Your task to perform on an android device: Open Chrome and go to the settings page Image 0: 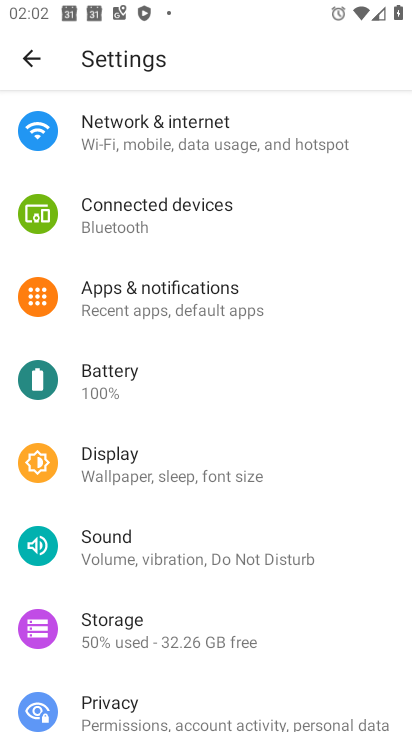
Step 0: press home button
Your task to perform on an android device: Open Chrome and go to the settings page Image 1: 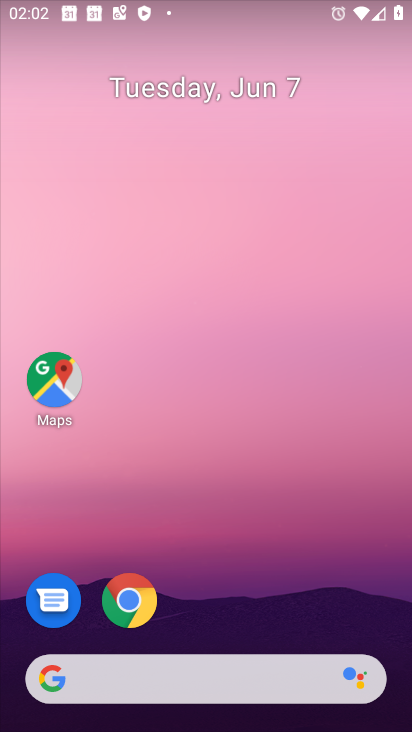
Step 1: click (128, 603)
Your task to perform on an android device: Open Chrome and go to the settings page Image 2: 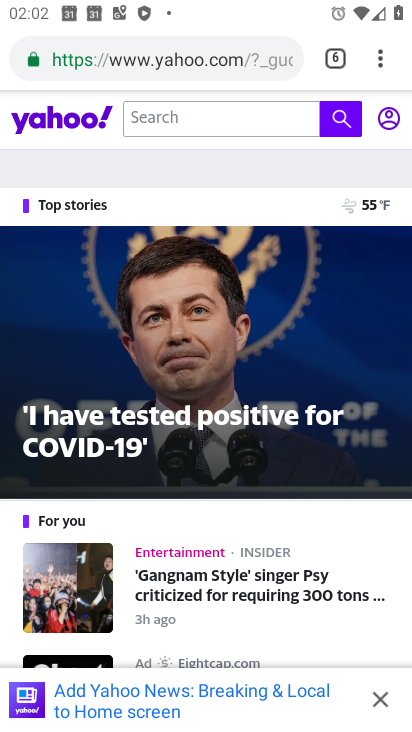
Step 2: click (381, 63)
Your task to perform on an android device: Open Chrome and go to the settings page Image 3: 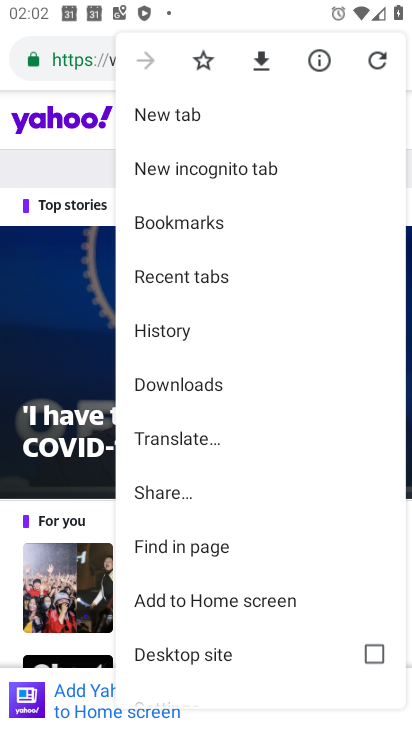
Step 3: drag from (186, 626) to (186, 218)
Your task to perform on an android device: Open Chrome and go to the settings page Image 4: 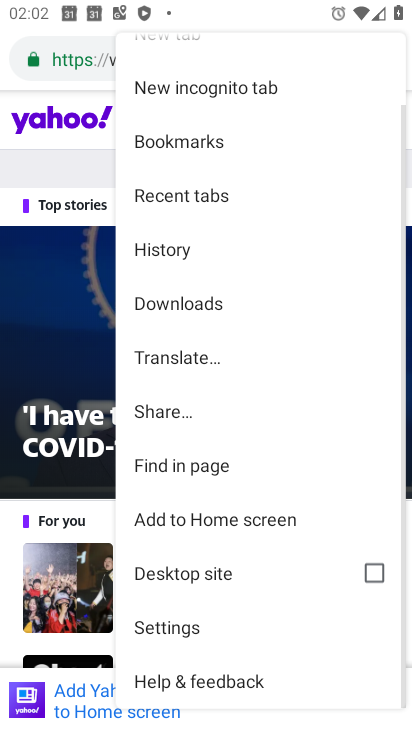
Step 4: click (181, 622)
Your task to perform on an android device: Open Chrome and go to the settings page Image 5: 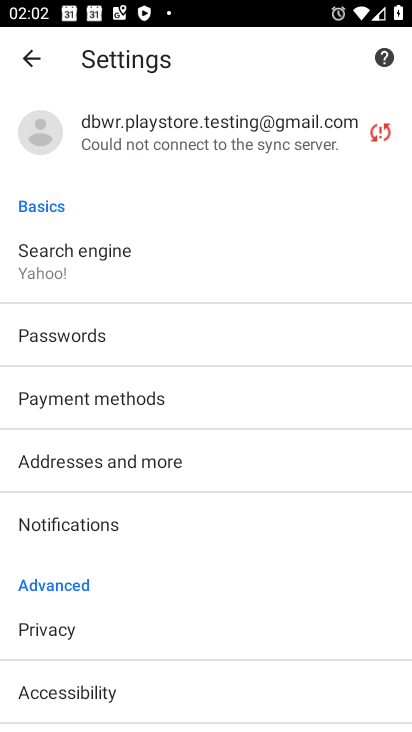
Step 5: task complete